Your task to perform on an android device: check storage Image 0: 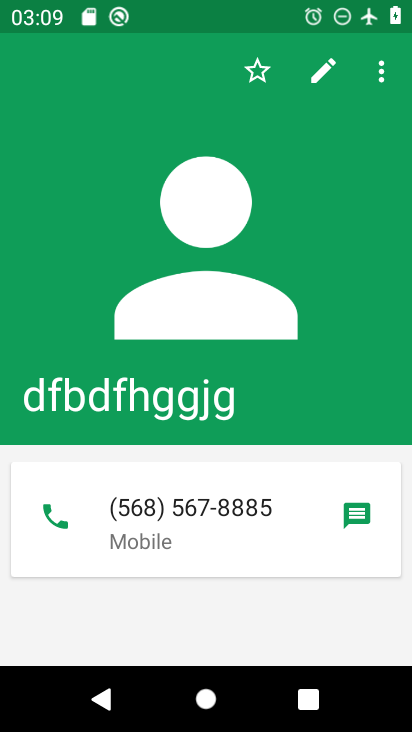
Step 0: press home button
Your task to perform on an android device: check storage Image 1: 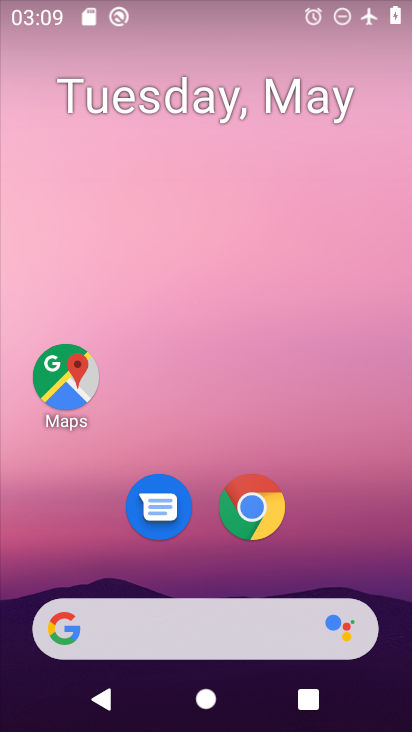
Step 1: drag from (205, 580) to (190, 191)
Your task to perform on an android device: check storage Image 2: 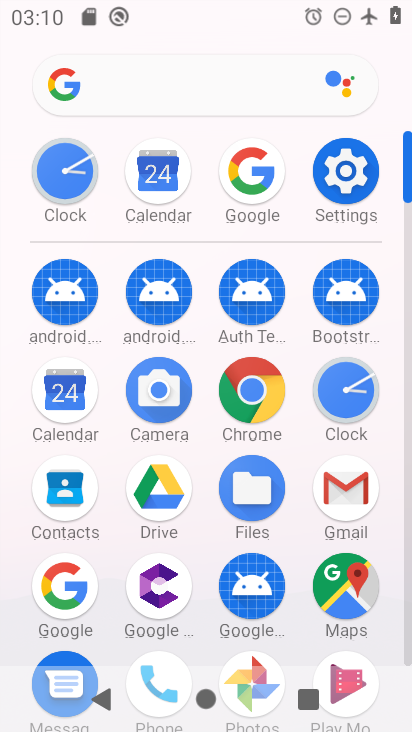
Step 2: click (348, 181)
Your task to perform on an android device: check storage Image 3: 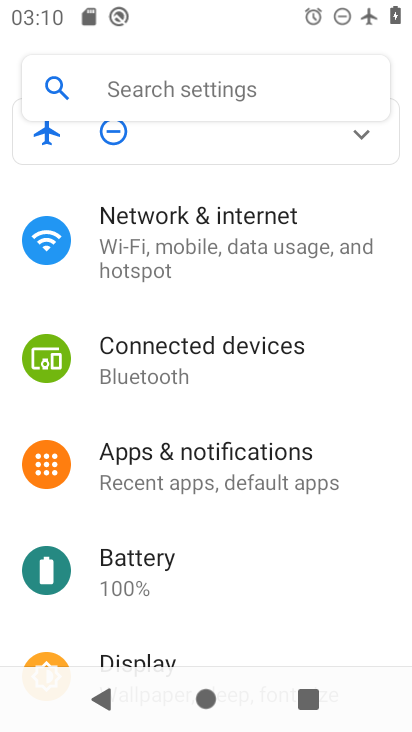
Step 3: drag from (230, 595) to (248, 366)
Your task to perform on an android device: check storage Image 4: 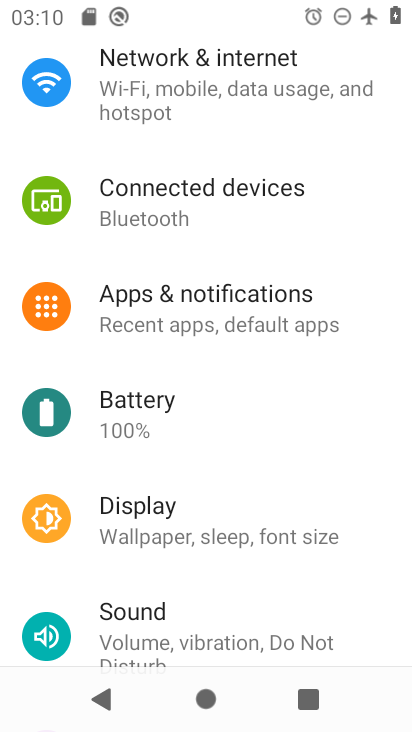
Step 4: drag from (230, 603) to (219, 310)
Your task to perform on an android device: check storage Image 5: 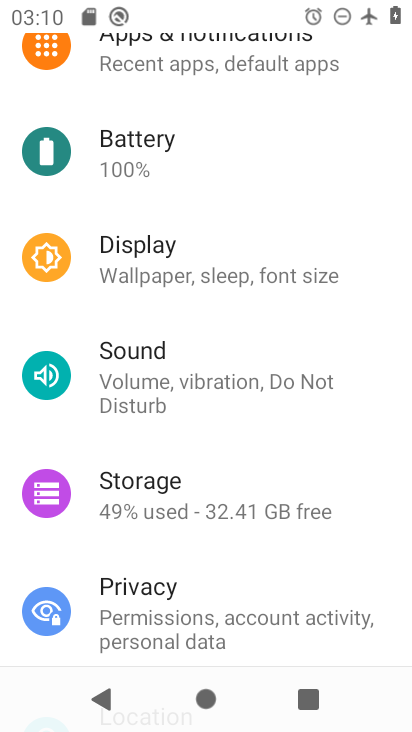
Step 5: click (203, 495)
Your task to perform on an android device: check storage Image 6: 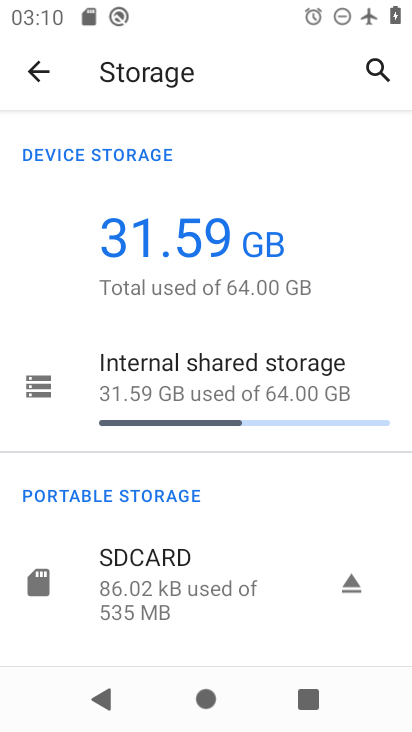
Step 6: task complete